Your task to perform on an android device: Search for pizza restaurants on Maps Image 0: 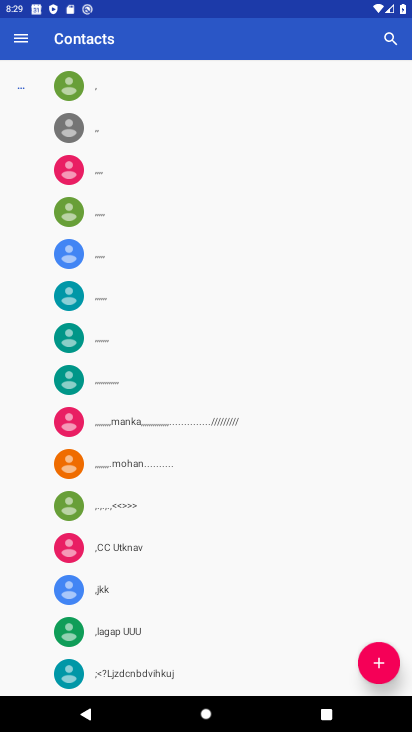
Step 0: press home button
Your task to perform on an android device: Search for pizza restaurants on Maps Image 1: 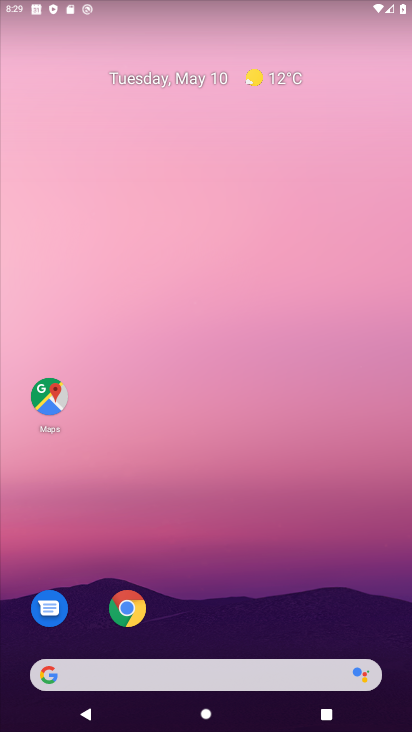
Step 1: click (48, 378)
Your task to perform on an android device: Search for pizza restaurants on Maps Image 2: 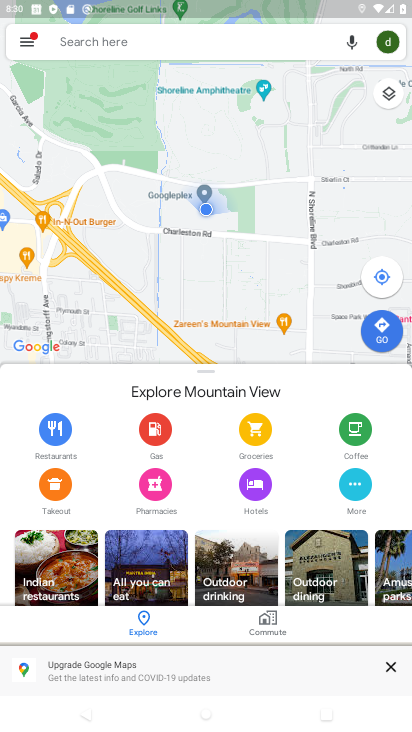
Step 2: click (113, 51)
Your task to perform on an android device: Search for pizza restaurants on Maps Image 3: 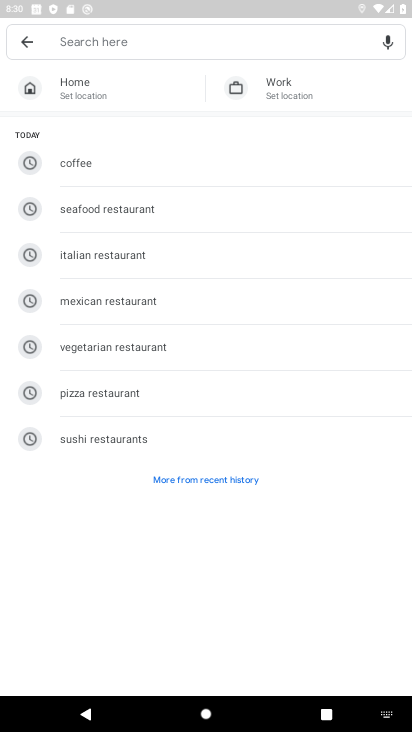
Step 3: click (176, 399)
Your task to perform on an android device: Search for pizza restaurants on Maps Image 4: 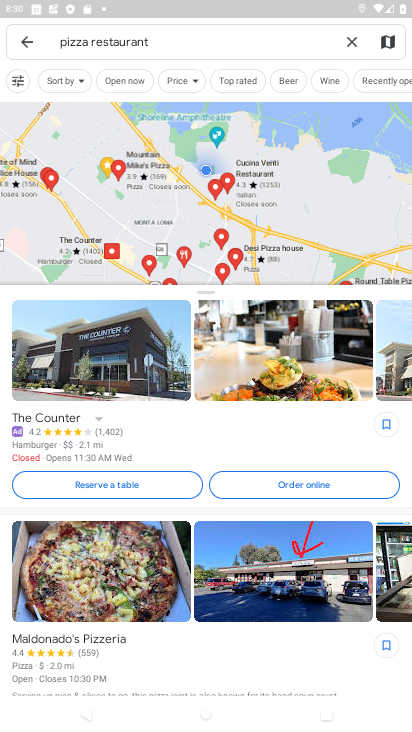
Step 4: task complete